Your task to perform on an android device: set the timer Image 0: 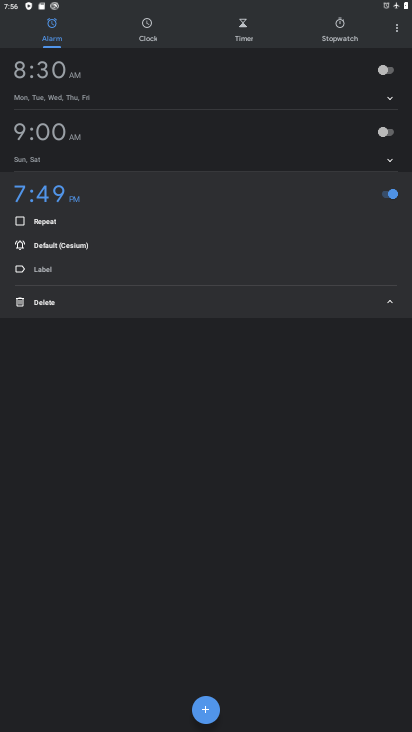
Step 0: click (248, 19)
Your task to perform on an android device: set the timer Image 1: 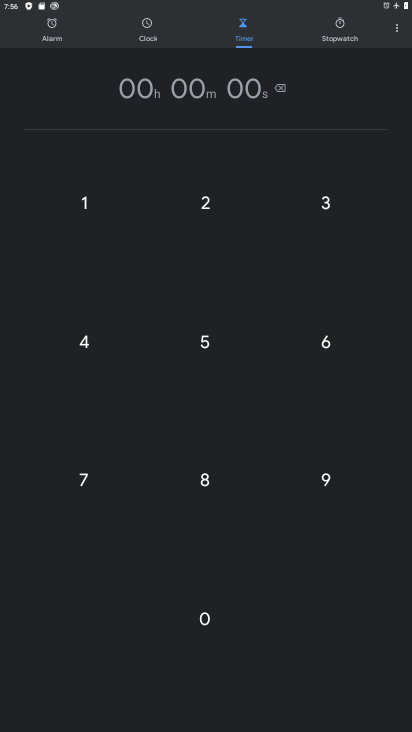
Step 1: click (192, 358)
Your task to perform on an android device: set the timer Image 2: 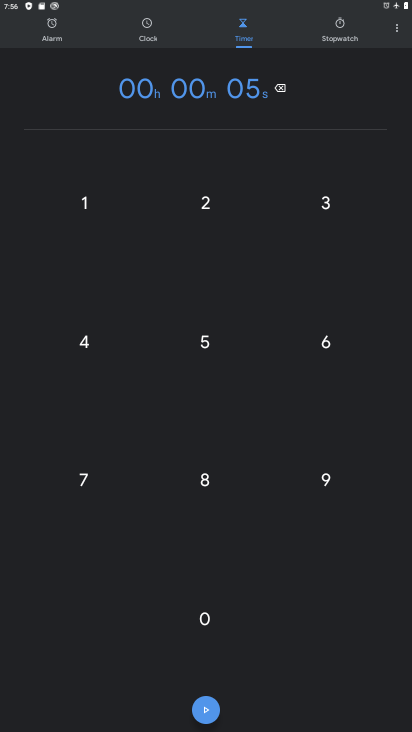
Step 2: task complete